Your task to perform on an android device: change the clock display to show seconds Image 0: 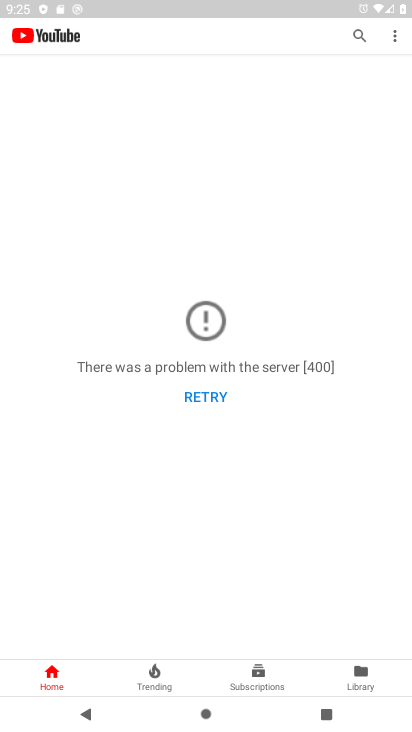
Step 0: press home button
Your task to perform on an android device: change the clock display to show seconds Image 1: 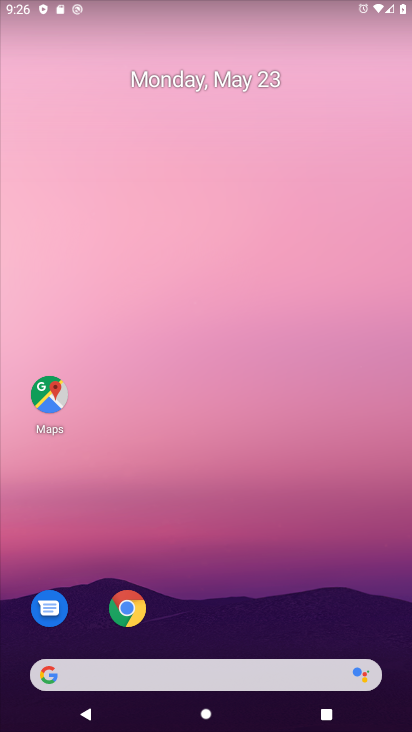
Step 1: drag from (215, 624) to (166, 315)
Your task to perform on an android device: change the clock display to show seconds Image 2: 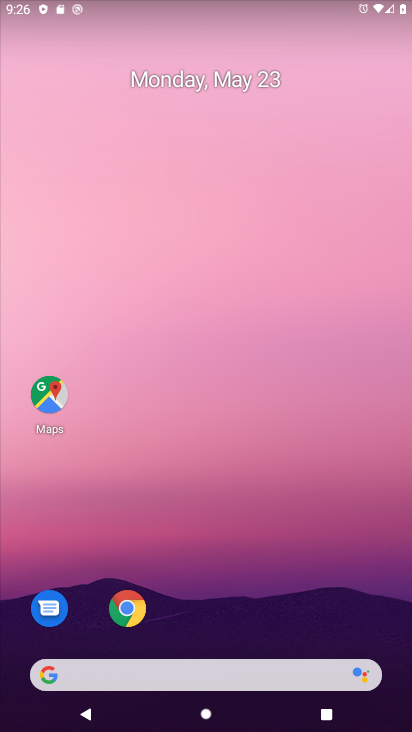
Step 2: drag from (235, 652) to (231, 125)
Your task to perform on an android device: change the clock display to show seconds Image 3: 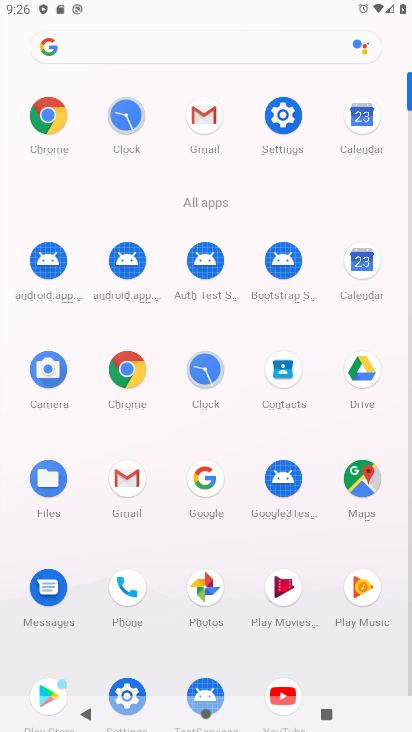
Step 3: click (129, 127)
Your task to perform on an android device: change the clock display to show seconds Image 4: 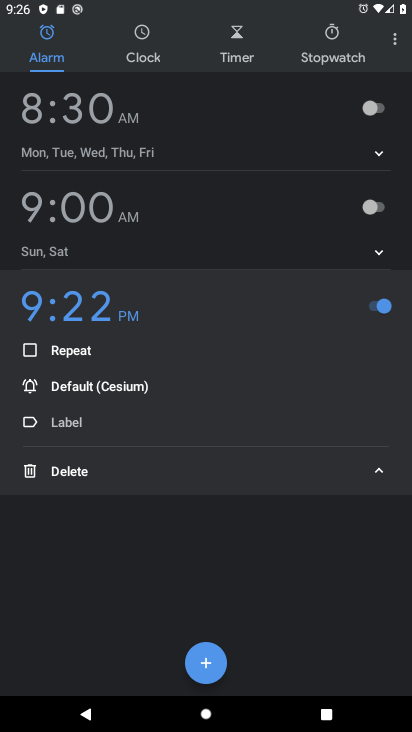
Step 4: click (400, 30)
Your task to perform on an android device: change the clock display to show seconds Image 5: 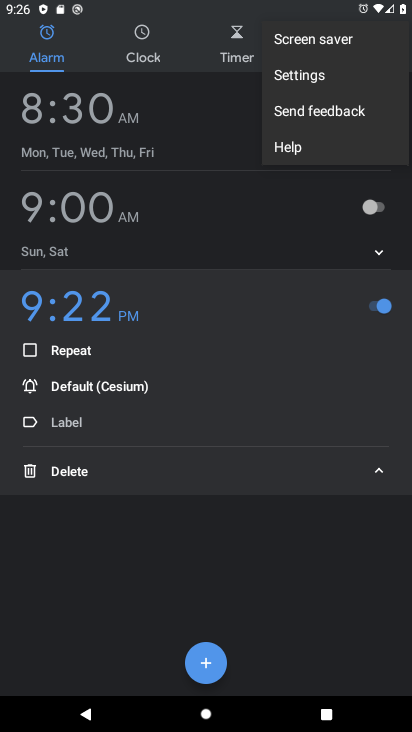
Step 5: click (363, 78)
Your task to perform on an android device: change the clock display to show seconds Image 6: 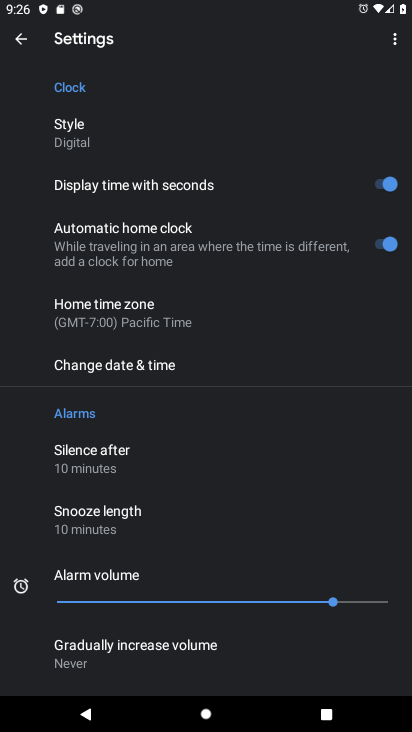
Step 6: task complete